Your task to perform on an android device: Go to eBay Image 0: 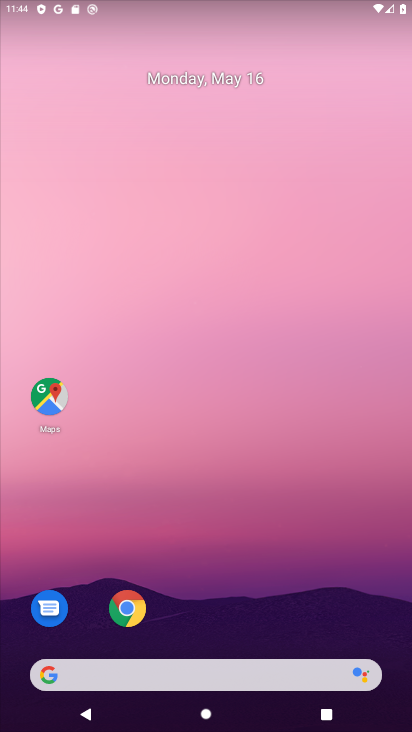
Step 0: drag from (250, 602) to (188, 0)
Your task to perform on an android device: Go to eBay Image 1: 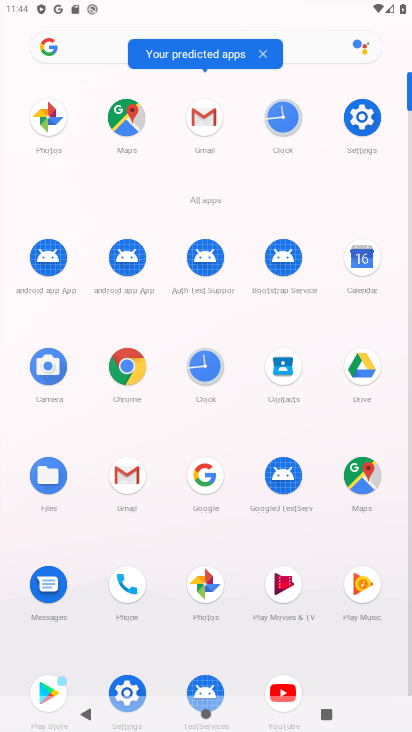
Step 1: click (124, 380)
Your task to perform on an android device: Go to eBay Image 2: 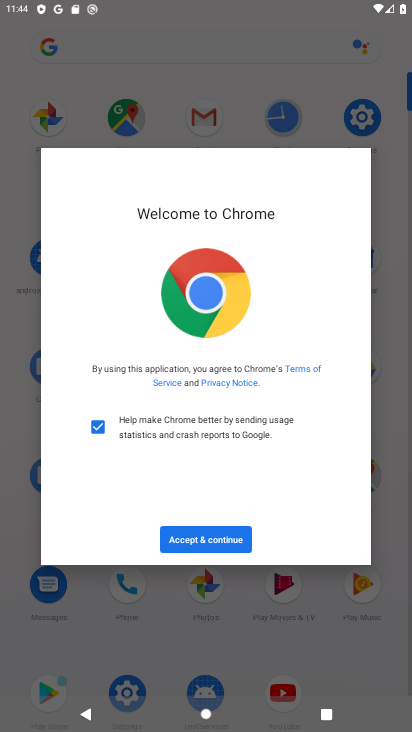
Step 2: click (184, 530)
Your task to perform on an android device: Go to eBay Image 3: 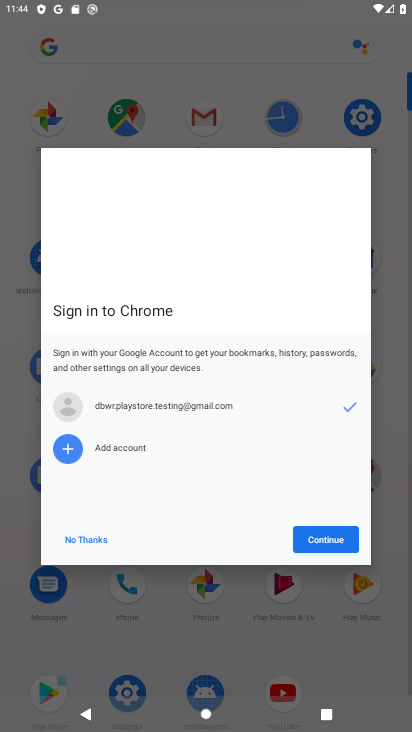
Step 3: click (330, 538)
Your task to perform on an android device: Go to eBay Image 4: 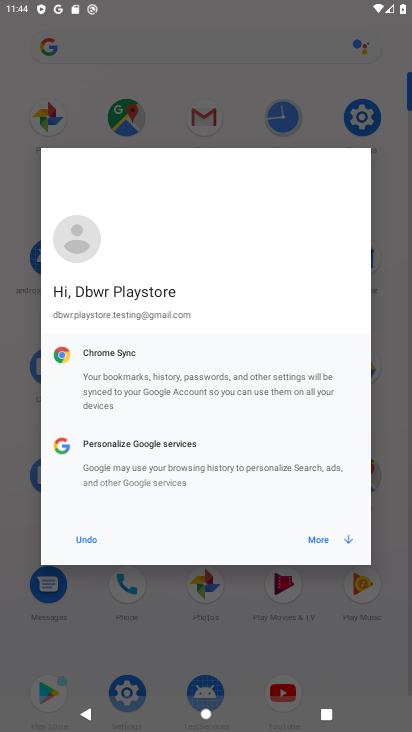
Step 4: click (330, 538)
Your task to perform on an android device: Go to eBay Image 5: 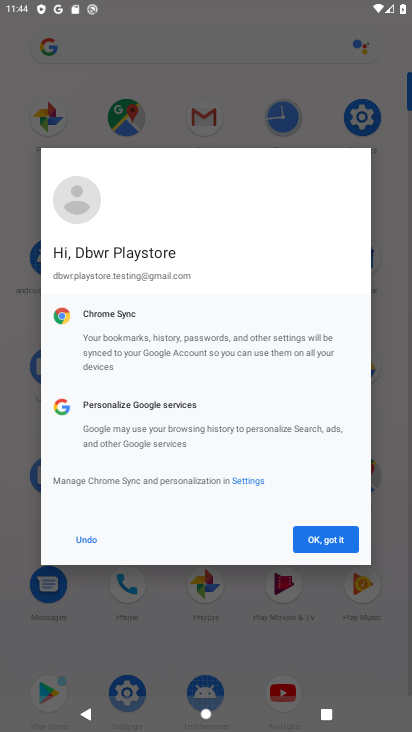
Step 5: click (330, 538)
Your task to perform on an android device: Go to eBay Image 6: 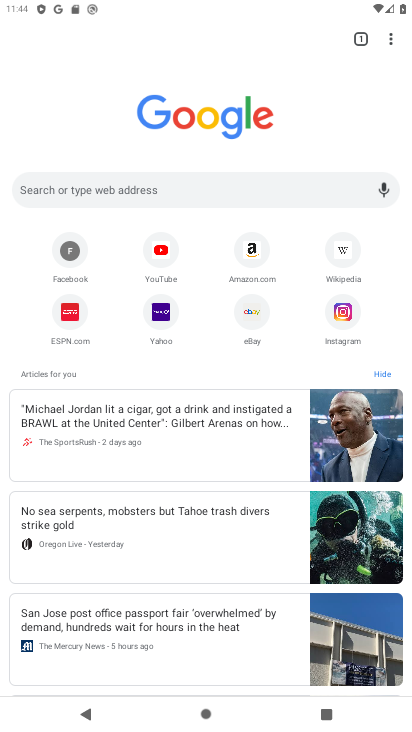
Step 6: click (255, 323)
Your task to perform on an android device: Go to eBay Image 7: 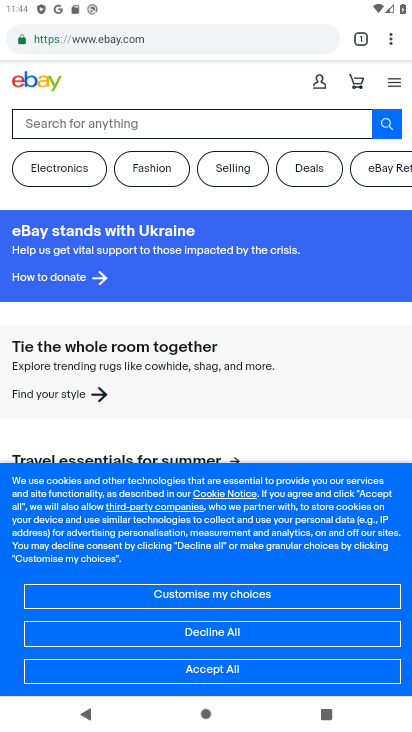
Step 7: task complete